Your task to perform on an android device: Open Google Maps and go to "Timeline" Image 0: 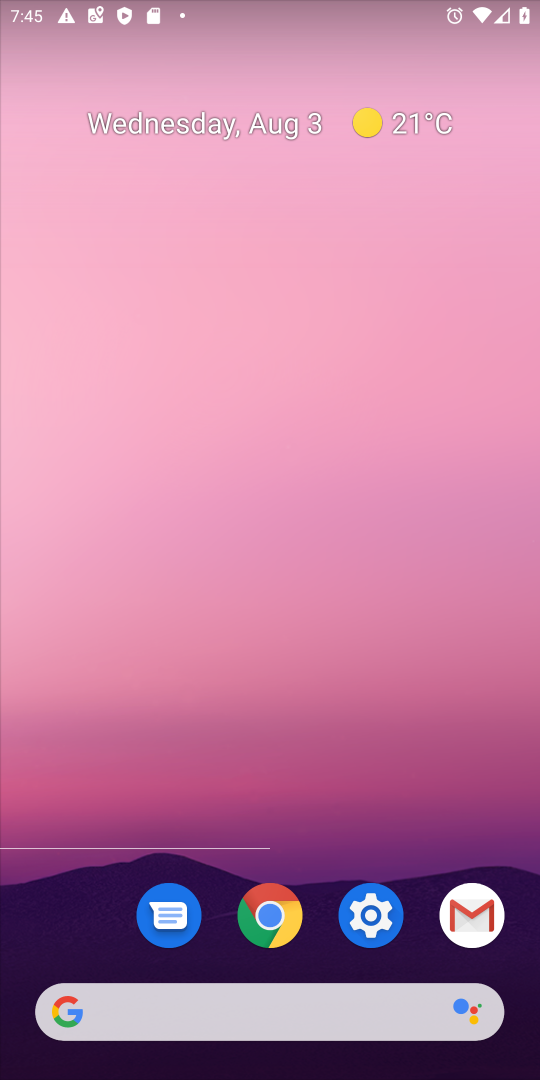
Step 0: press home button
Your task to perform on an android device: Open Google Maps and go to "Timeline" Image 1: 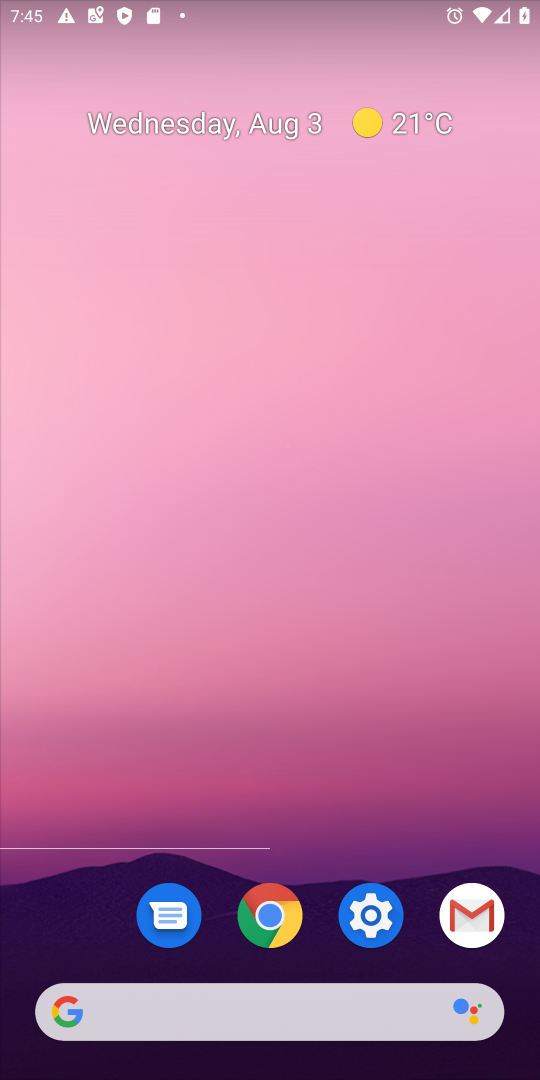
Step 1: drag from (333, 1063) to (230, 160)
Your task to perform on an android device: Open Google Maps and go to "Timeline" Image 2: 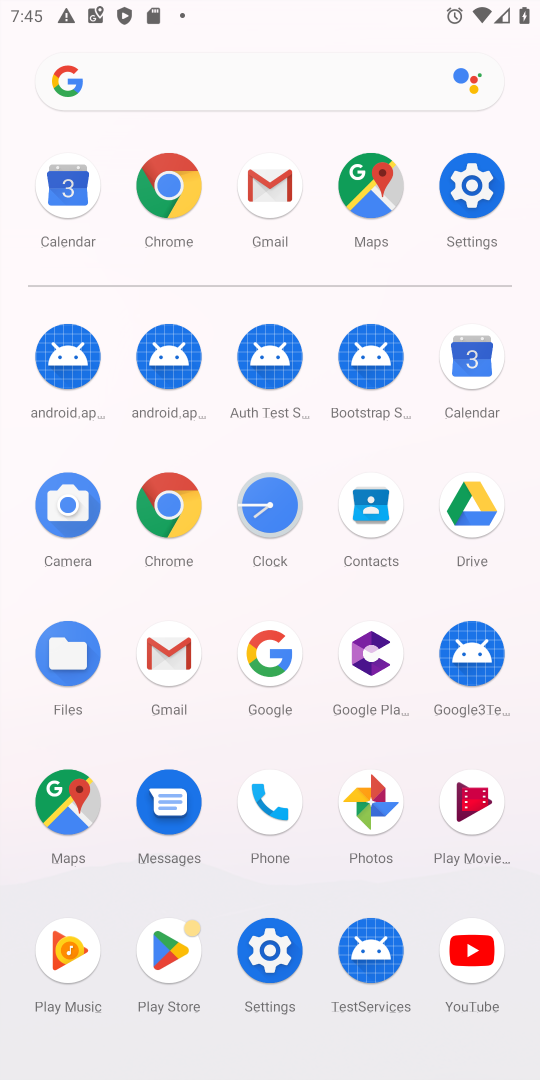
Step 2: click (379, 187)
Your task to perform on an android device: Open Google Maps and go to "Timeline" Image 3: 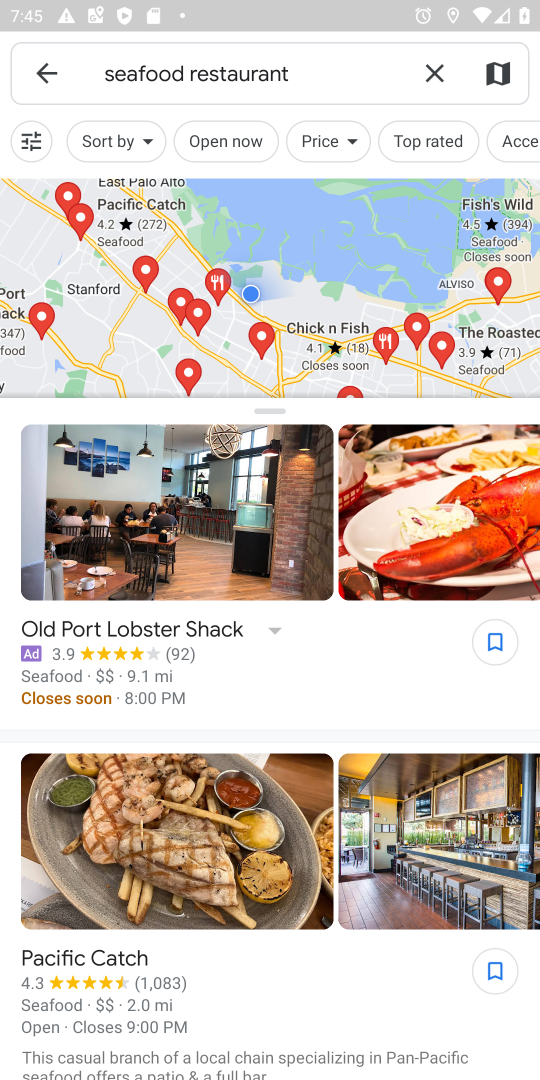
Step 3: click (53, 61)
Your task to perform on an android device: Open Google Maps and go to "Timeline" Image 4: 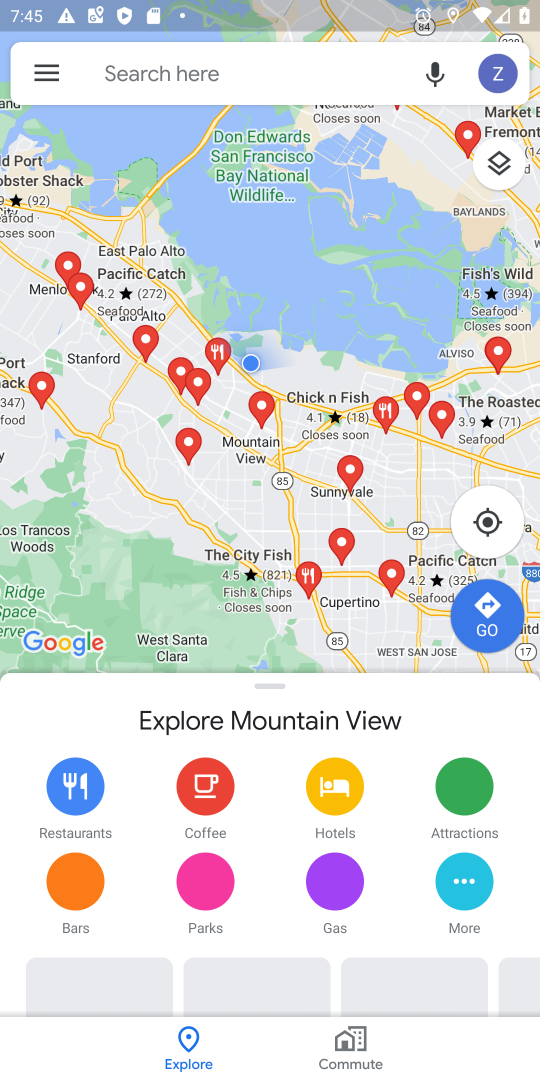
Step 4: click (53, 68)
Your task to perform on an android device: Open Google Maps and go to "Timeline" Image 5: 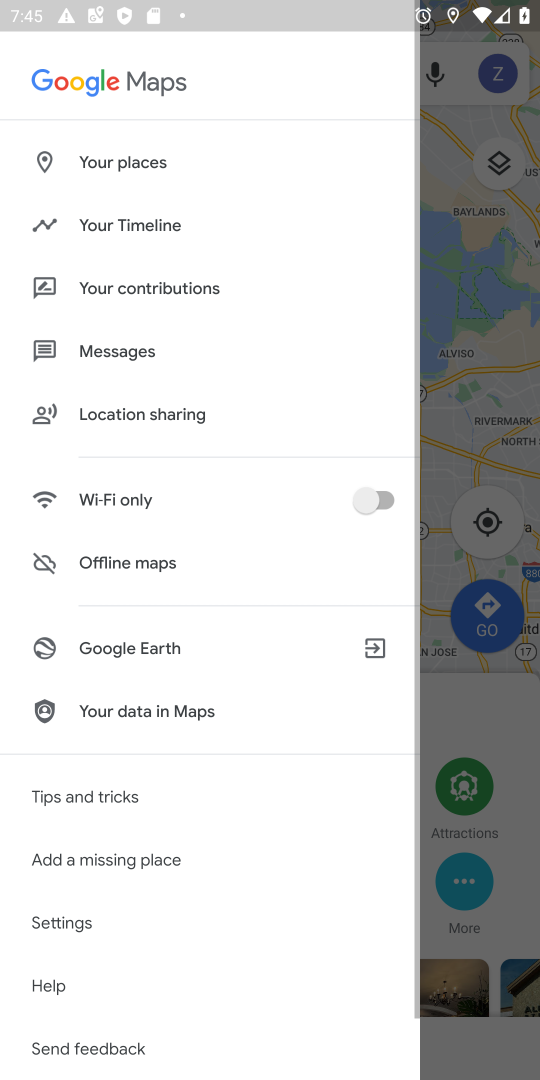
Step 5: click (168, 221)
Your task to perform on an android device: Open Google Maps and go to "Timeline" Image 6: 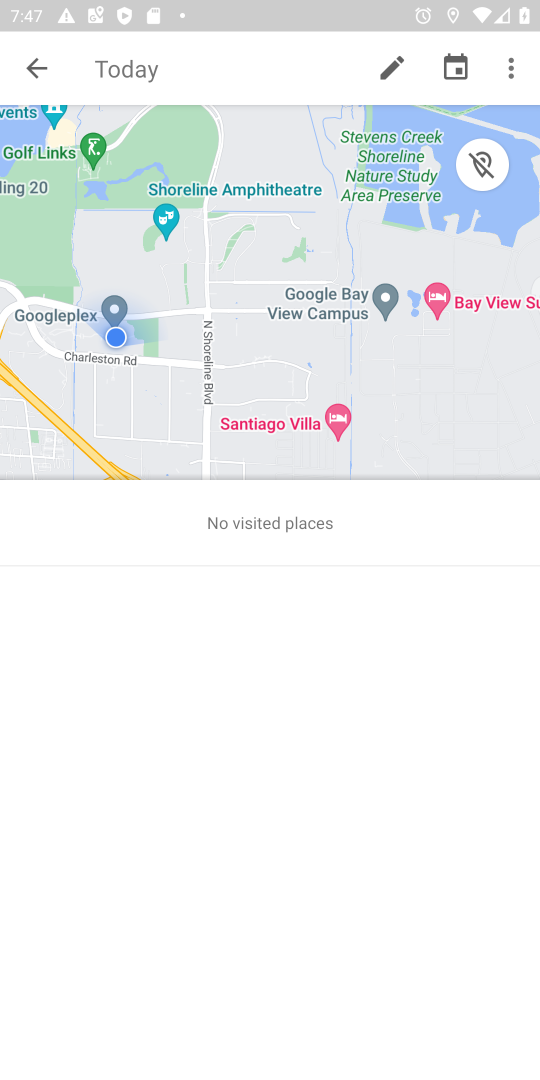
Step 6: task complete